Your task to perform on an android device: Open the phone app and click the voicemail tab. Image 0: 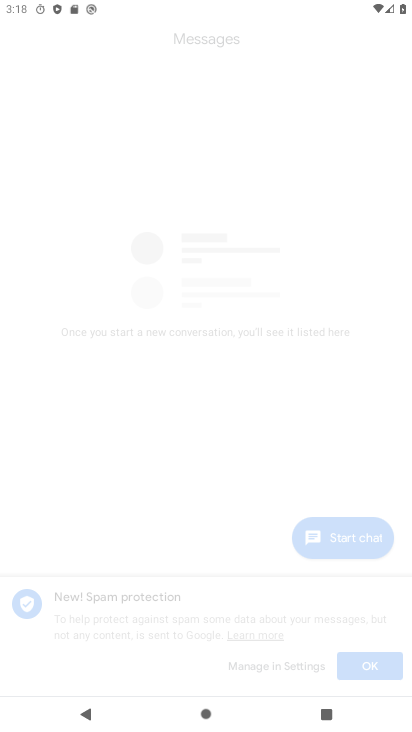
Step 0: press home button
Your task to perform on an android device: Open the phone app and click the voicemail tab. Image 1: 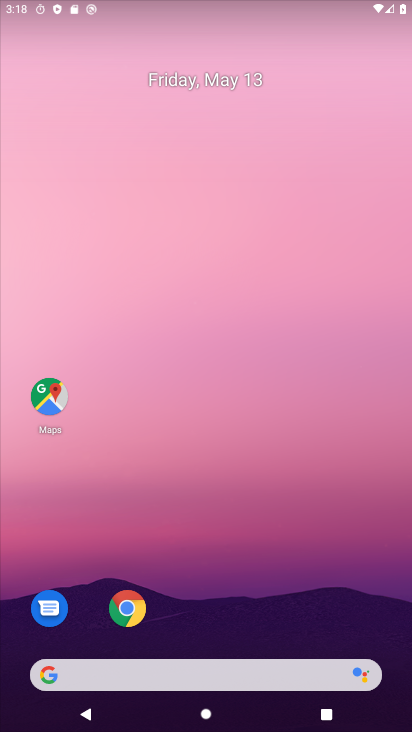
Step 1: drag from (279, 587) to (265, 33)
Your task to perform on an android device: Open the phone app and click the voicemail tab. Image 2: 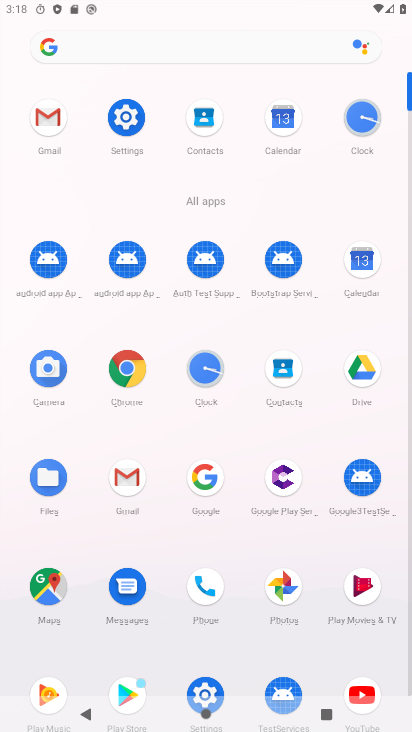
Step 2: click (194, 570)
Your task to perform on an android device: Open the phone app and click the voicemail tab. Image 3: 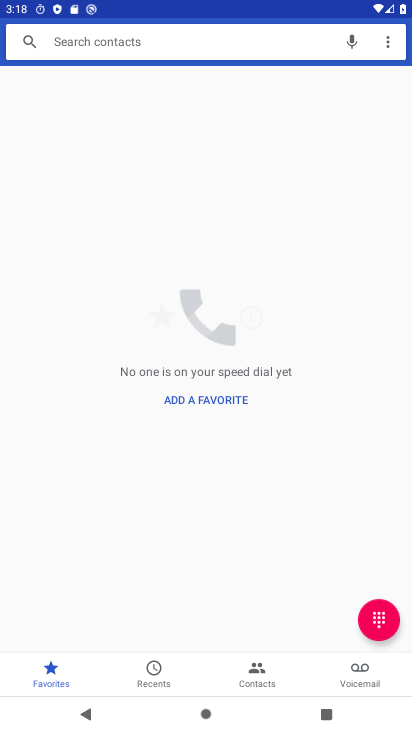
Step 3: click (369, 671)
Your task to perform on an android device: Open the phone app and click the voicemail tab. Image 4: 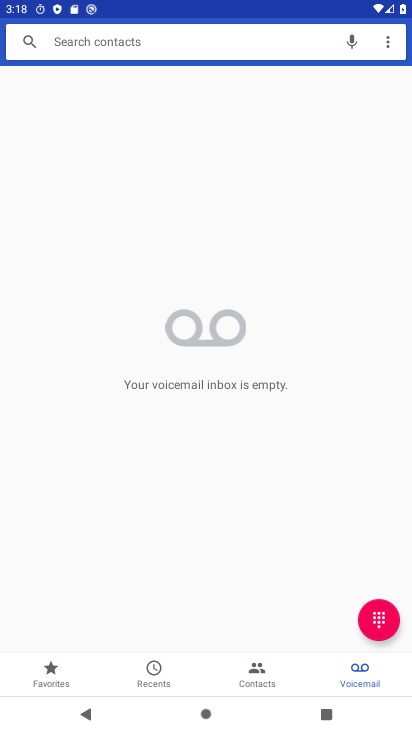
Step 4: task complete